Your task to perform on an android device: Go to location settings Image 0: 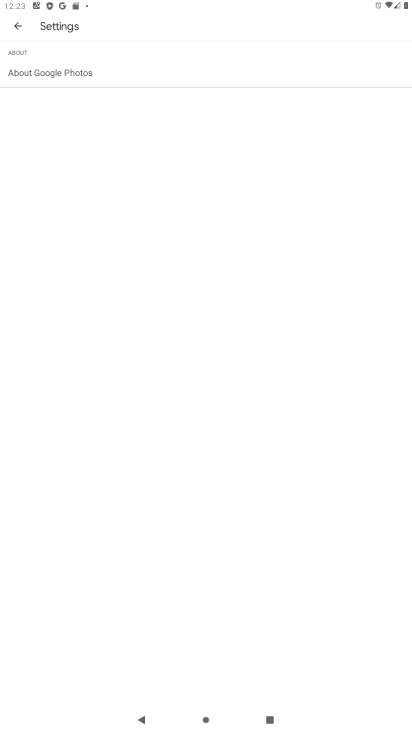
Step 0: press home button
Your task to perform on an android device: Go to location settings Image 1: 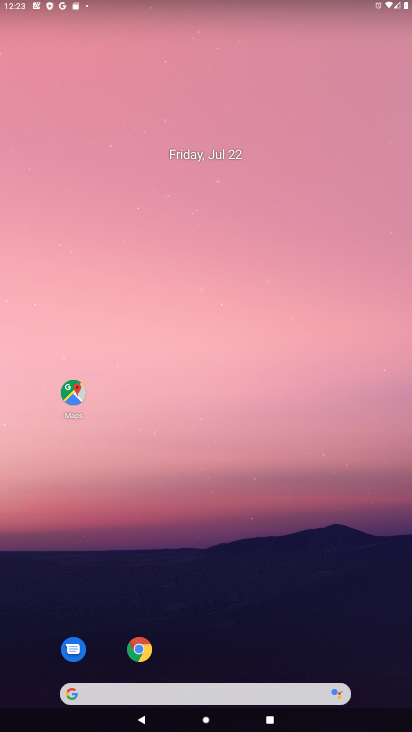
Step 1: drag from (269, 608) to (20, 89)
Your task to perform on an android device: Go to location settings Image 2: 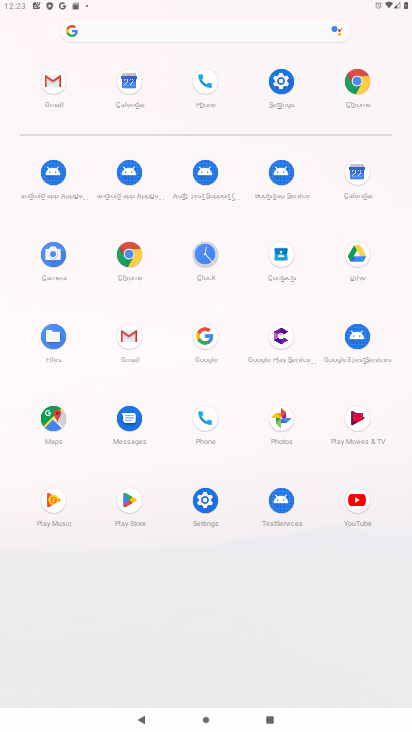
Step 2: click (282, 83)
Your task to perform on an android device: Go to location settings Image 3: 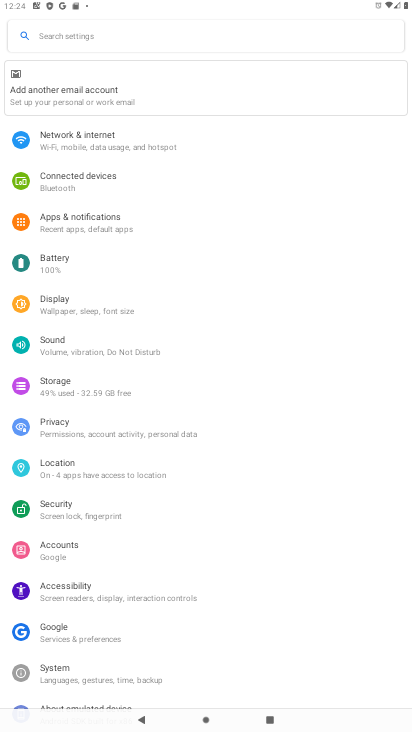
Step 3: click (52, 470)
Your task to perform on an android device: Go to location settings Image 4: 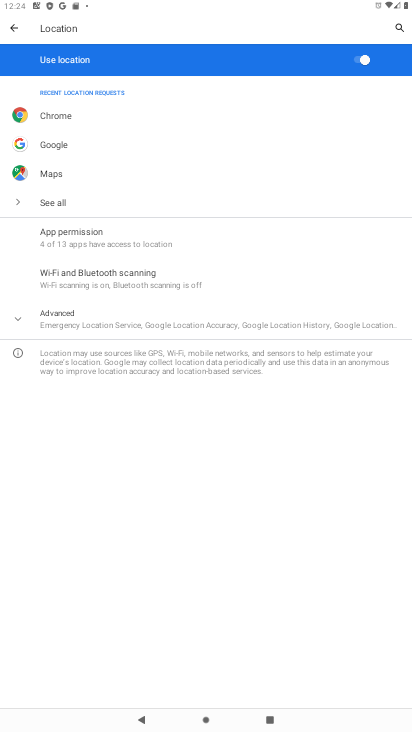
Step 4: task complete